Your task to perform on an android device: Show me the alarms in the clock app Image 0: 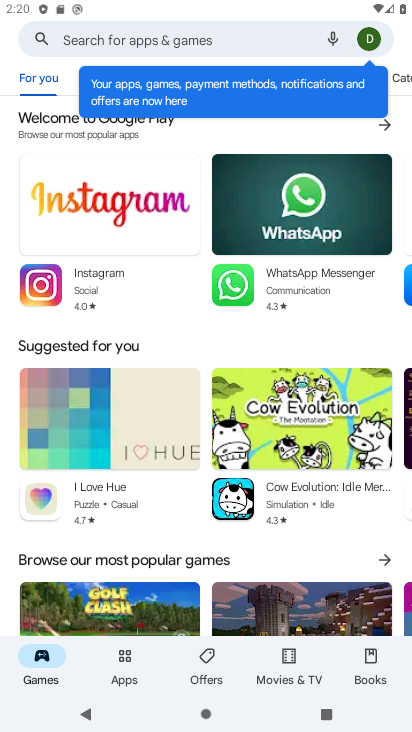
Step 0: press home button
Your task to perform on an android device: Show me the alarms in the clock app Image 1: 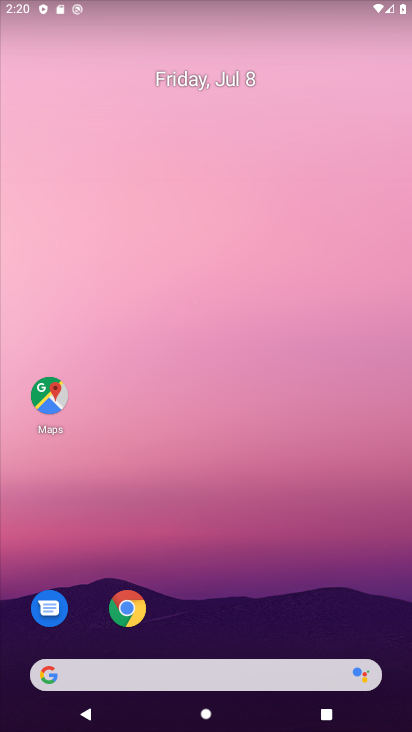
Step 1: drag from (282, 584) to (241, 59)
Your task to perform on an android device: Show me the alarms in the clock app Image 2: 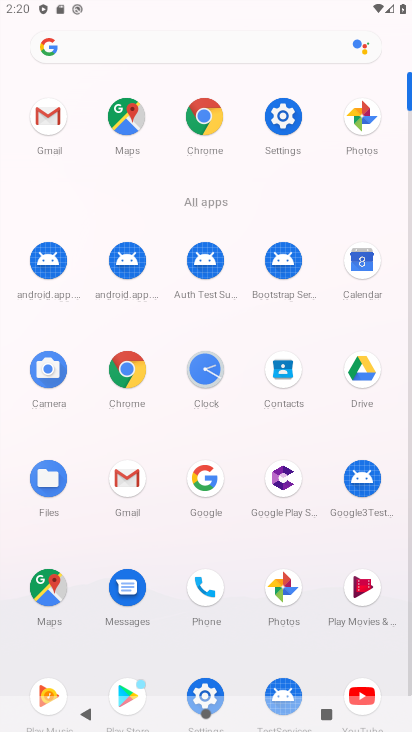
Step 2: click (209, 367)
Your task to perform on an android device: Show me the alarms in the clock app Image 3: 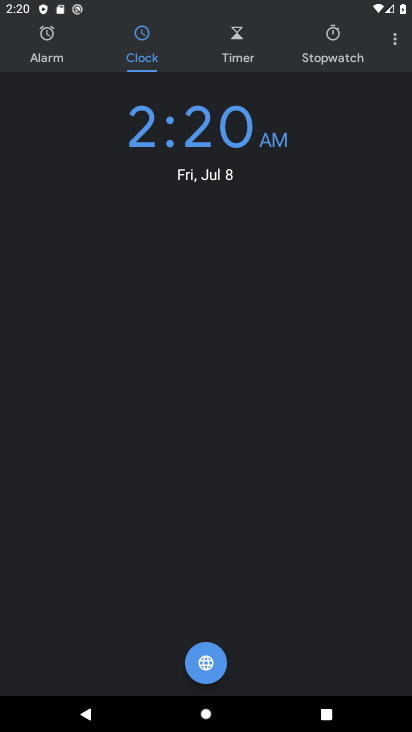
Step 3: click (209, 367)
Your task to perform on an android device: Show me the alarms in the clock app Image 4: 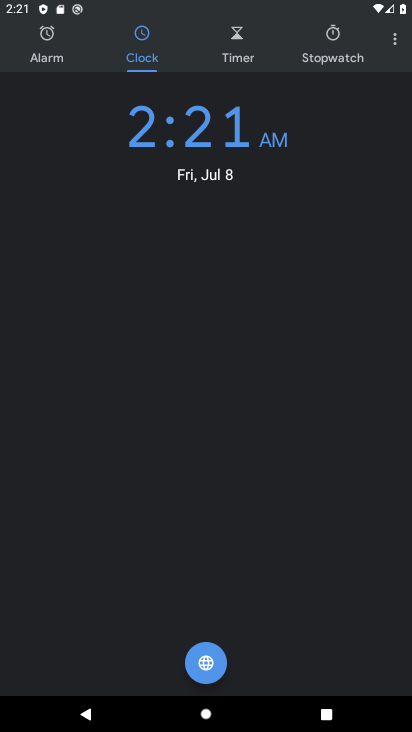
Step 4: click (62, 64)
Your task to perform on an android device: Show me the alarms in the clock app Image 5: 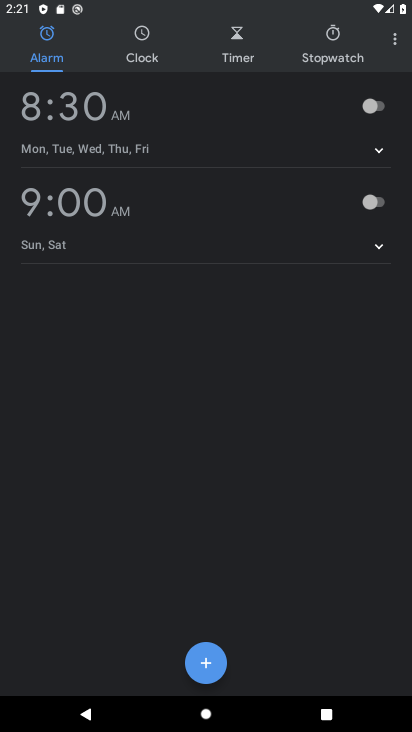
Step 5: click (374, 114)
Your task to perform on an android device: Show me the alarms in the clock app Image 6: 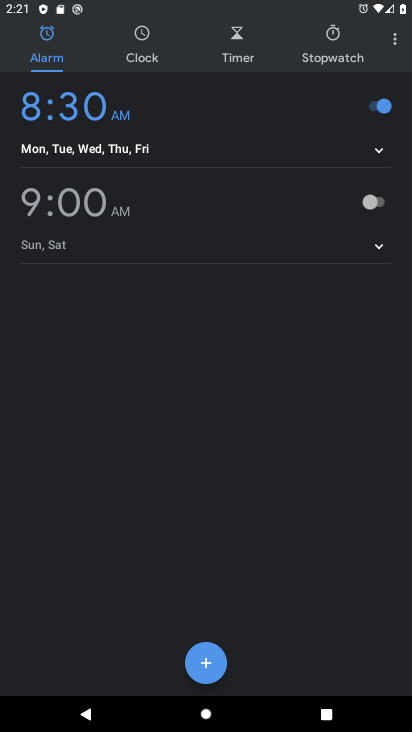
Step 6: task complete